Your task to perform on an android device: Open Youtube and go to the subscriptions tab Image 0: 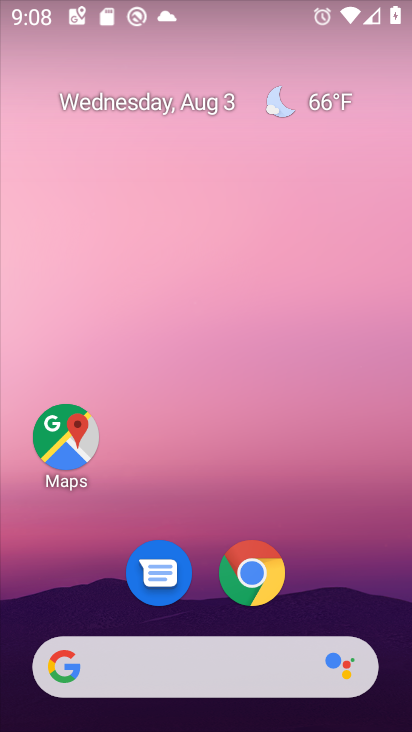
Step 0: drag from (358, 624) to (366, 0)
Your task to perform on an android device: Open Youtube and go to the subscriptions tab Image 1: 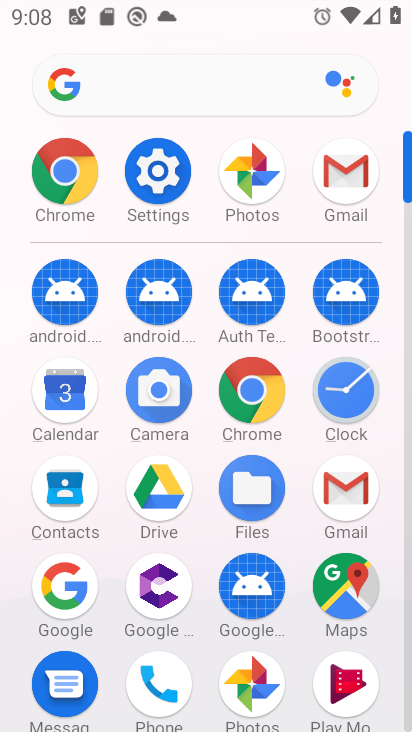
Step 1: click (407, 542)
Your task to perform on an android device: Open Youtube and go to the subscriptions tab Image 2: 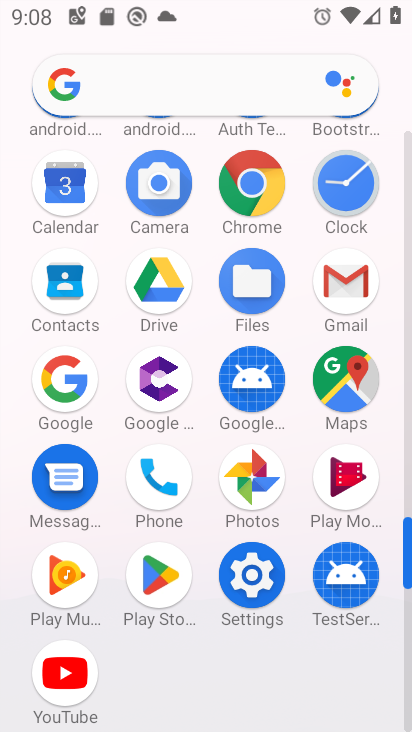
Step 2: click (76, 668)
Your task to perform on an android device: Open Youtube and go to the subscriptions tab Image 3: 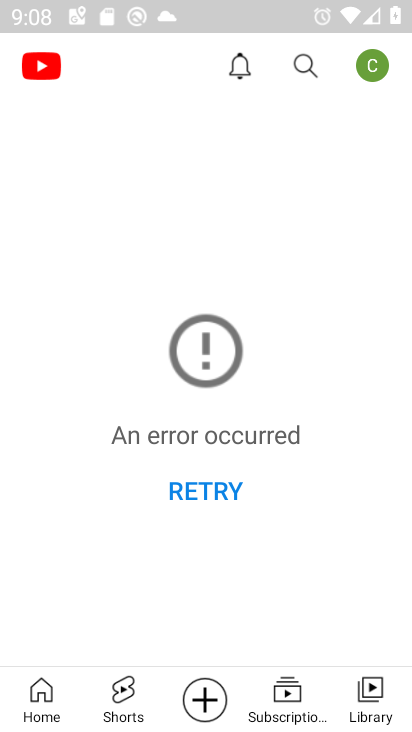
Step 3: click (292, 700)
Your task to perform on an android device: Open Youtube and go to the subscriptions tab Image 4: 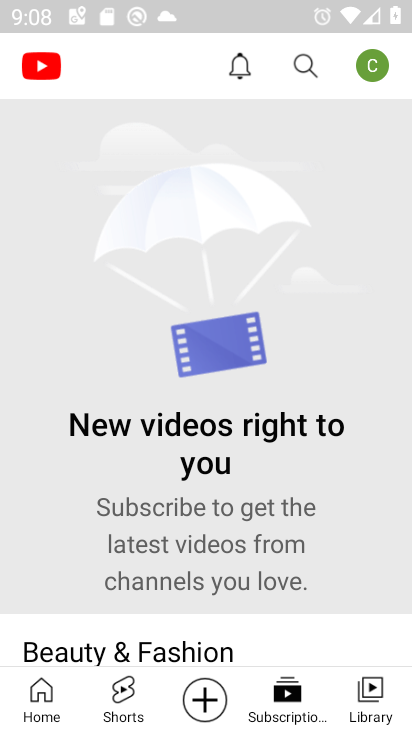
Step 4: task complete